Your task to perform on an android device: check out phone information Image 0: 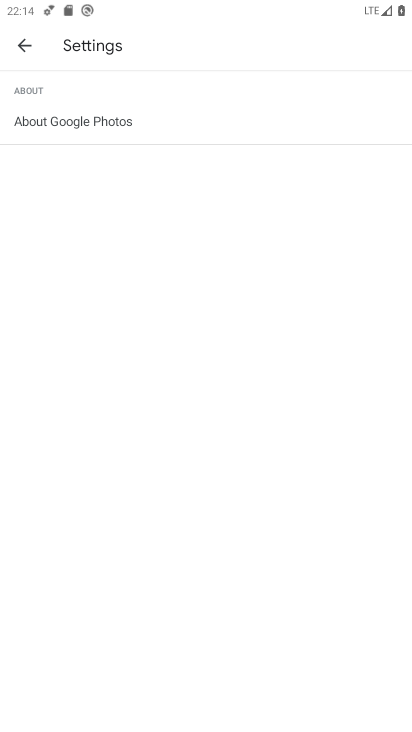
Step 0: press home button
Your task to perform on an android device: check out phone information Image 1: 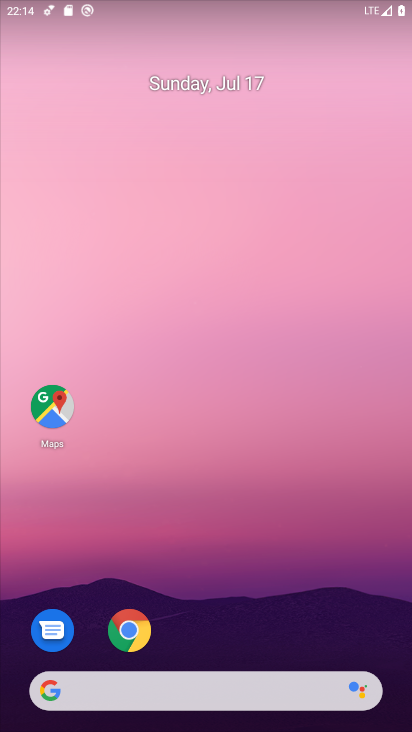
Step 1: drag from (210, 633) to (220, 60)
Your task to perform on an android device: check out phone information Image 2: 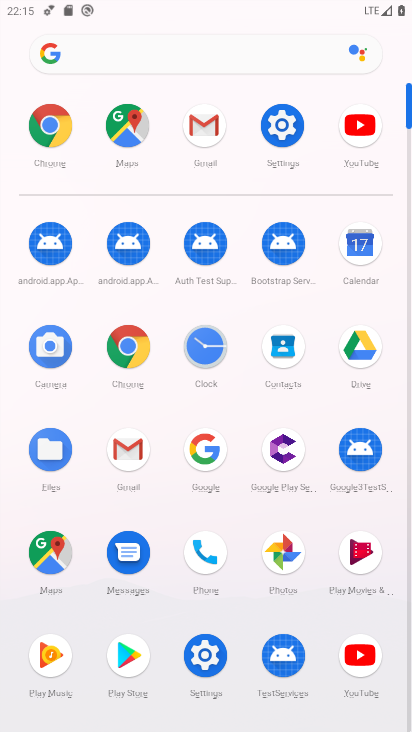
Step 2: click (204, 663)
Your task to perform on an android device: check out phone information Image 3: 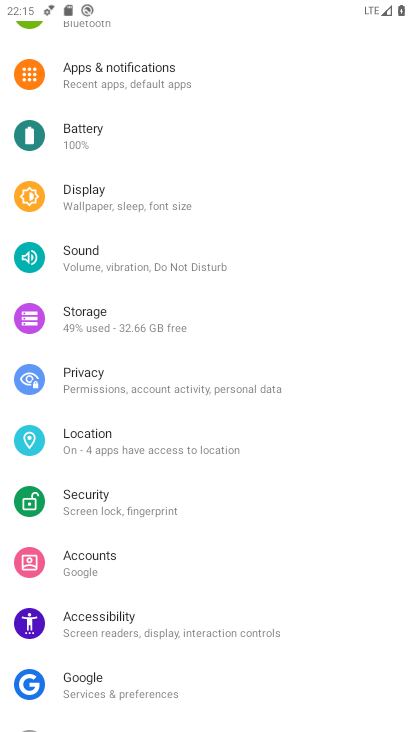
Step 3: drag from (160, 537) to (166, 375)
Your task to perform on an android device: check out phone information Image 4: 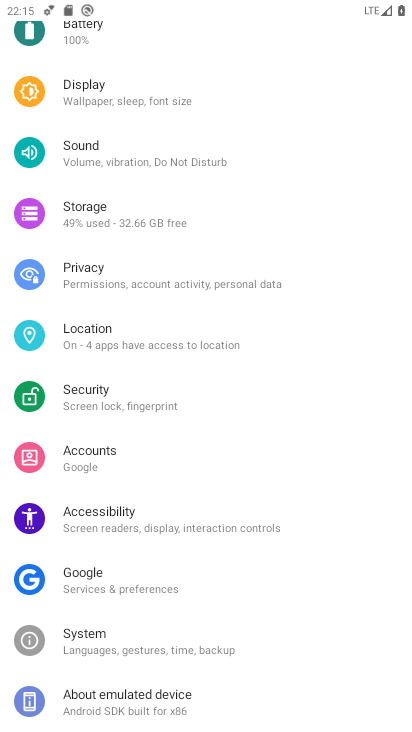
Step 4: click (112, 699)
Your task to perform on an android device: check out phone information Image 5: 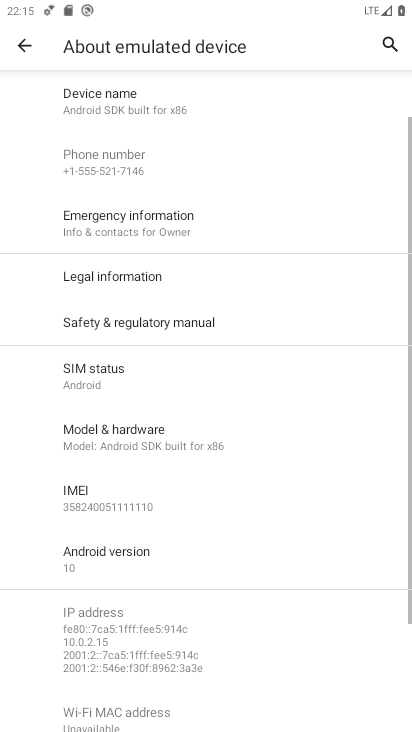
Step 5: task complete